Your task to perform on an android device: see tabs open on other devices in the chrome app Image 0: 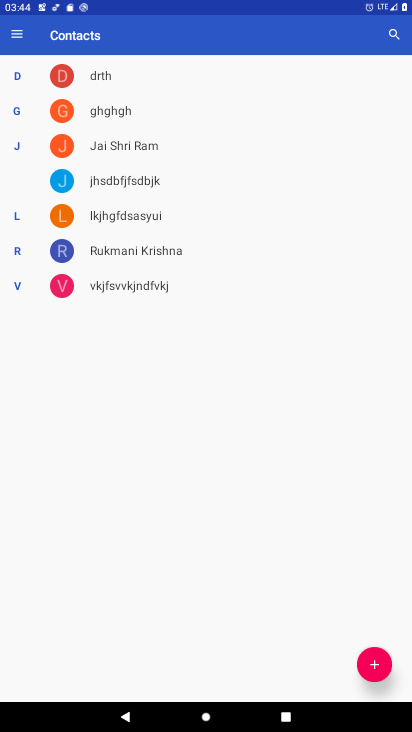
Step 0: press home button
Your task to perform on an android device: see tabs open on other devices in the chrome app Image 1: 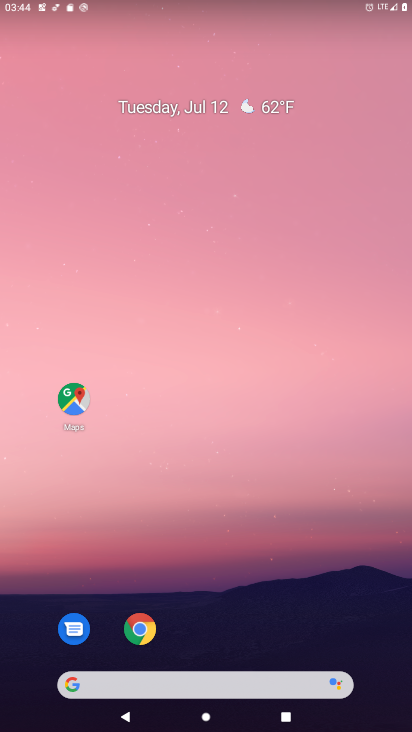
Step 1: click (134, 635)
Your task to perform on an android device: see tabs open on other devices in the chrome app Image 2: 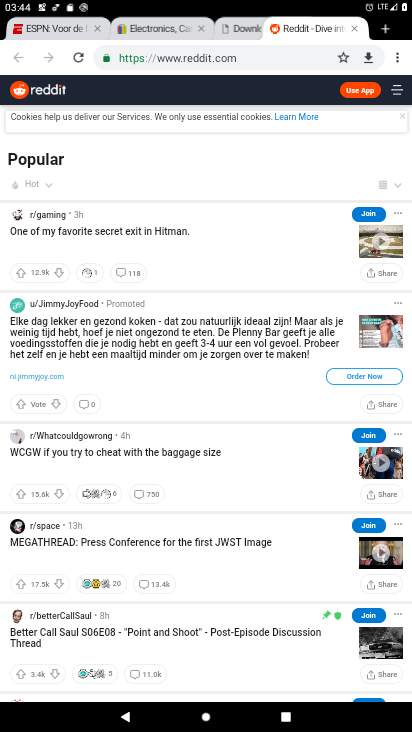
Step 2: click (232, 27)
Your task to perform on an android device: see tabs open on other devices in the chrome app Image 3: 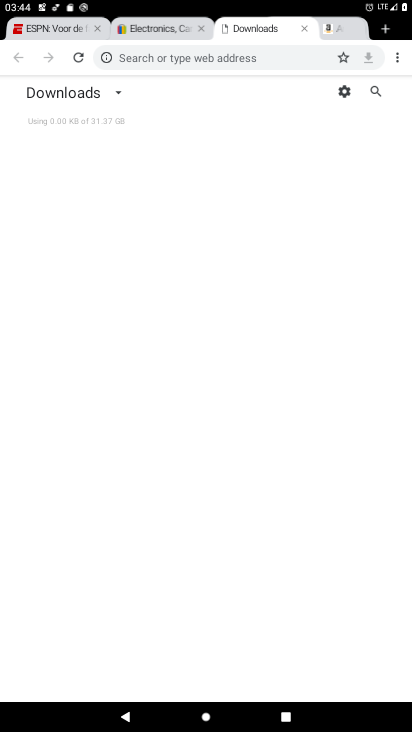
Step 3: click (158, 33)
Your task to perform on an android device: see tabs open on other devices in the chrome app Image 4: 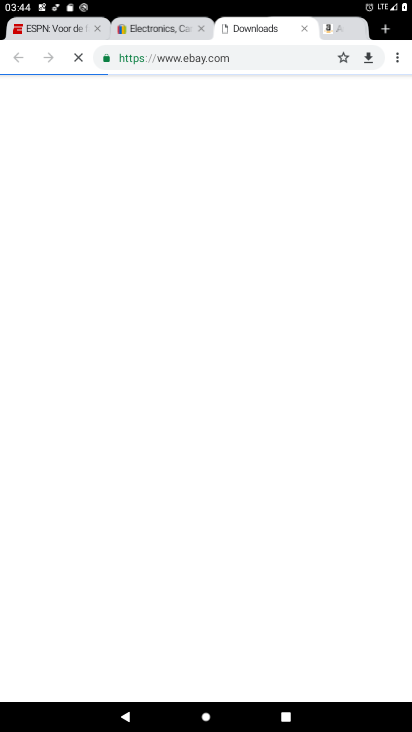
Step 4: click (62, 26)
Your task to perform on an android device: see tabs open on other devices in the chrome app Image 5: 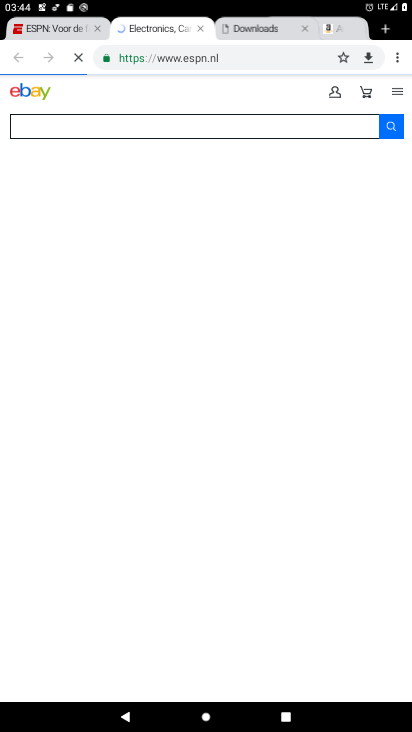
Step 5: task complete